Your task to perform on an android device: turn pop-ups off in chrome Image 0: 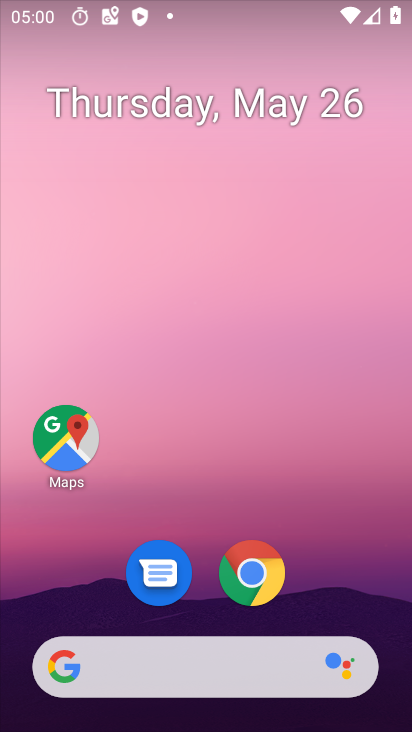
Step 0: click (261, 583)
Your task to perform on an android device: turn pop-ups off in chrome Image 1: 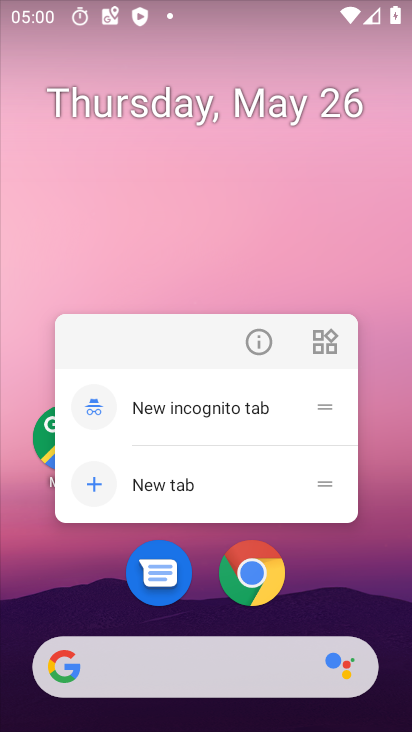
Step 1: click (250, 574)
Your task to perform on an android device: turn pop-ups off in chrome Image 2: 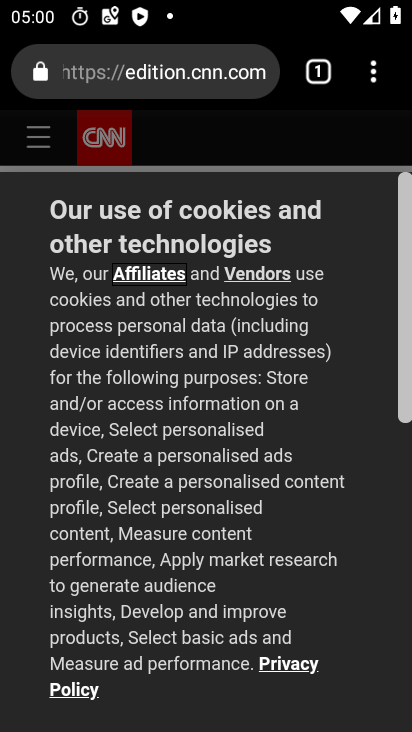
Step 2: click (370, 83)
Your task to perform on an android device: turn pop-ups off in chrome Image 3: 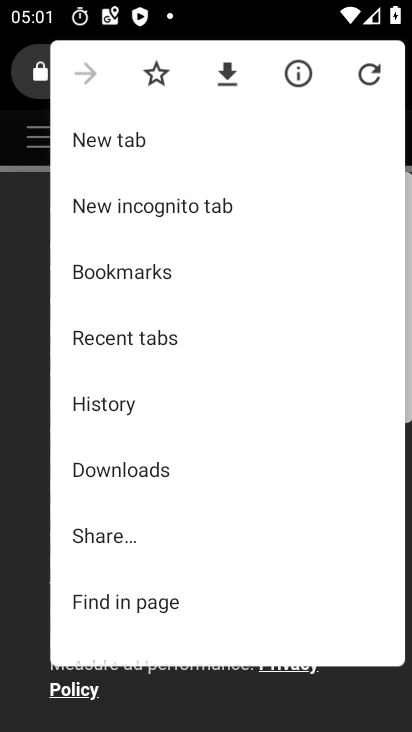
Step 3: drag from (127, 562) to (157, 207)
Your task to perform on an android device: turn pop-ups off in chrome Image 4: 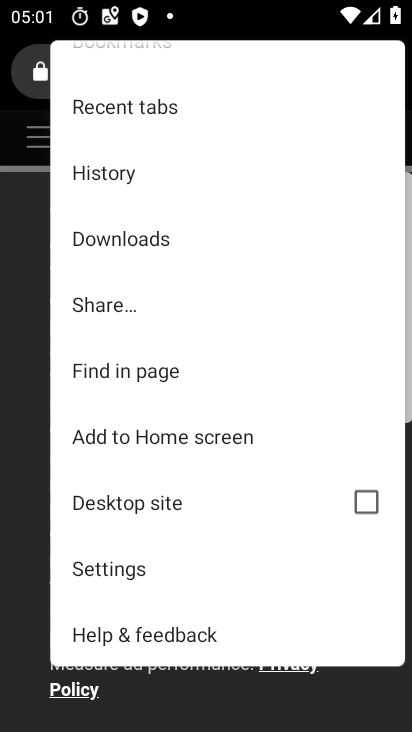
Step 4: click (120, 563)
Your task to perform on an android device: turn pop-ups off in chrome Image 5: 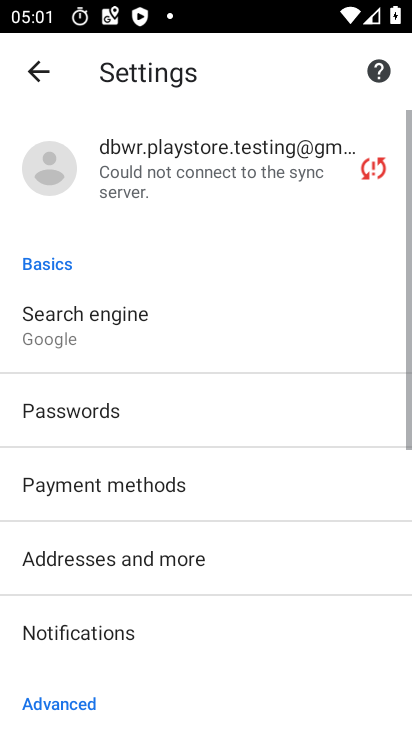
Step 5: drag from (115, 614) to (142, 279)
Your task to perform on an android device: turn pop-ups off in chrome Image 6: 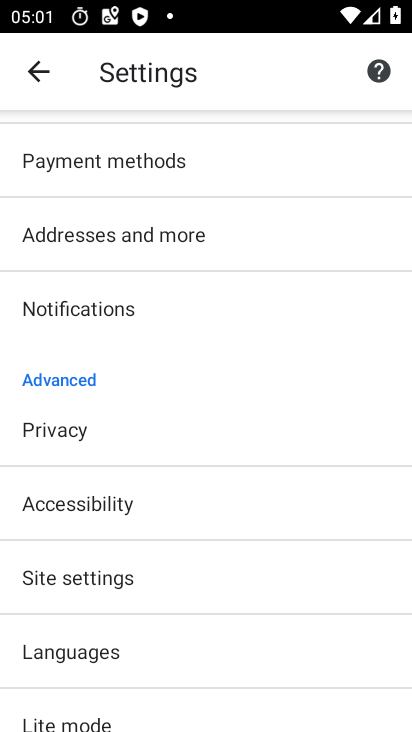
Step 6: click (66, 565)
Your task to perform on an android device: turn pop-ups off in chrome Image 7: 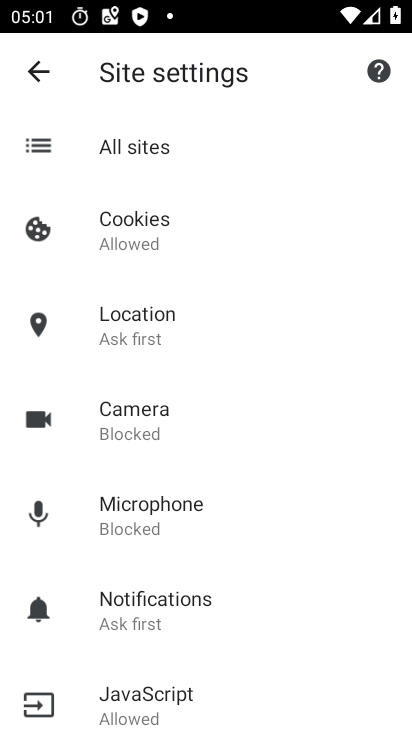
Step 7: drag from (205, 470) to (229, 331)
Your task to perform on an android device: turn pop-ups off in chrome Image 8: 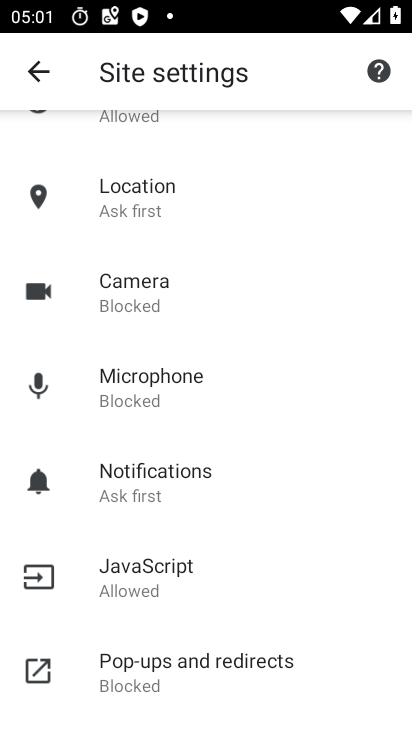
Step 8: click (147, 665)
Your task to perform on an android device: turn pop-ups off in chrome Image 9: 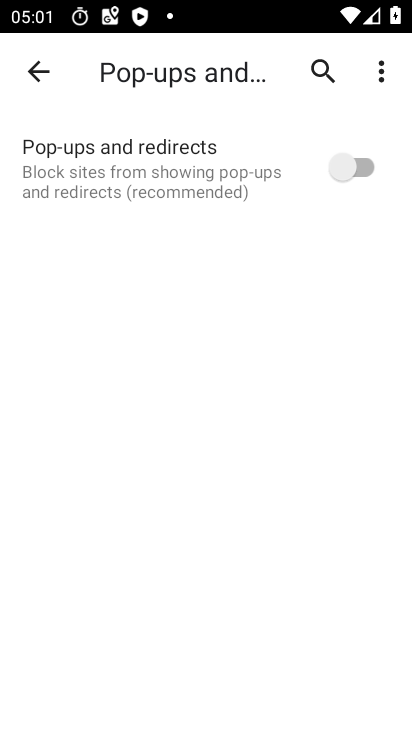
Step 9: task complete